Your task to perform on an android device: Go to Google Image 0: 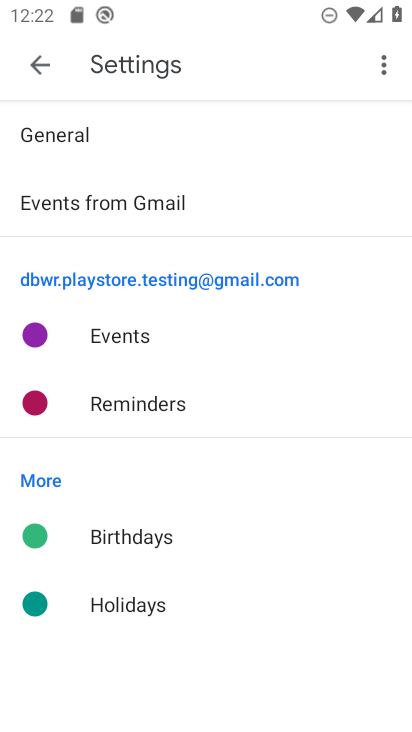
Step 0: press home button
Your task to perform on an android device: Go to Google Image 1: 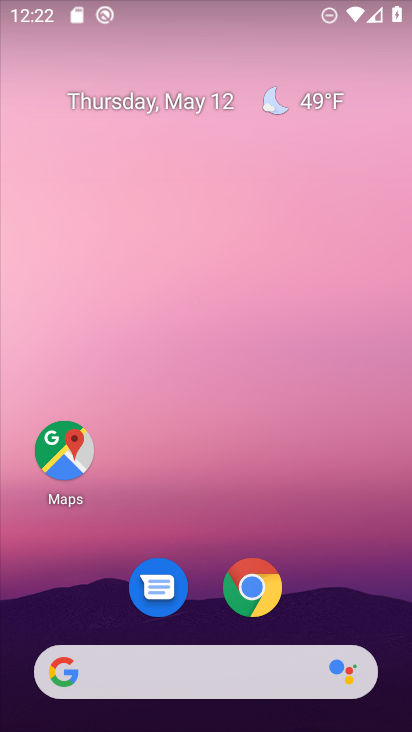
Step 1: drag from (322, 546) to (318, 357)
Your task to perform on an android device: Go to Google Image 2: 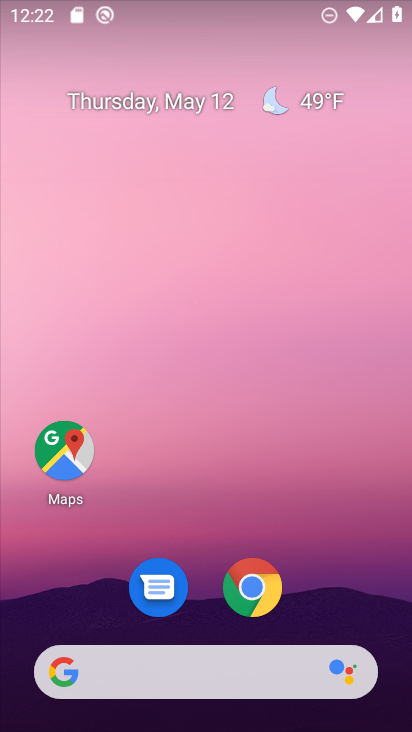
Step 2: drag from (310, 504) to (292, 274)
Your task to perform on an android device: Go to Google Image 3: 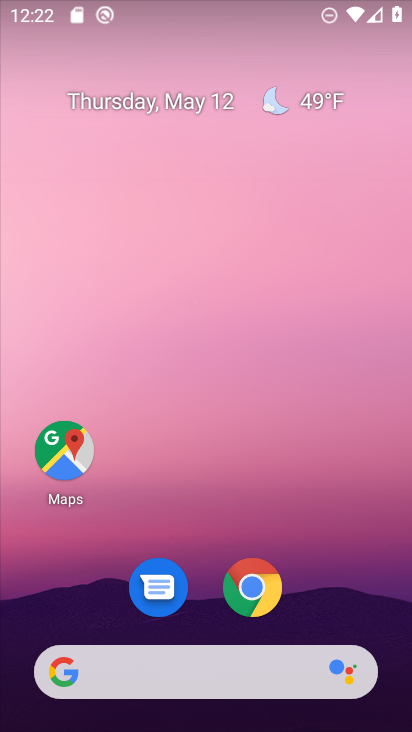
Step 3: drag from (314, 635) to (256, 185)
Your task to perform on an android device: Go to Google Image 4: 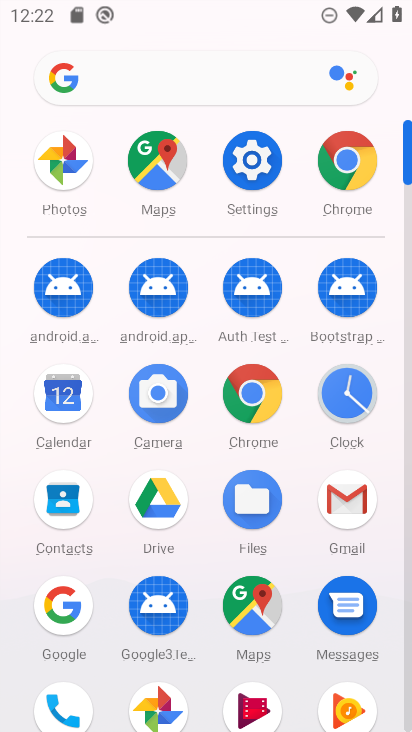
Step 4: click (47, 606)
Your task to perform on an android device: Go to Google Image 5: 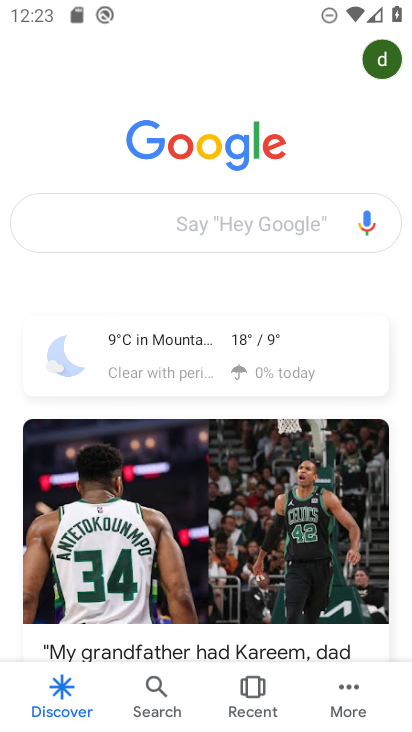
Step 5: task complete